Your task to perform on an android device: Open wifi settings Image 0: 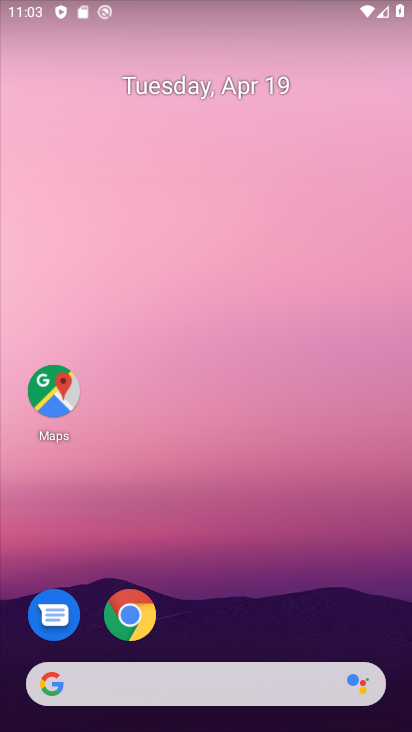
Step 0: drag from (207, 635) to (251, 221)
Your task to perform on an android device: Open wifi settings Image 1: 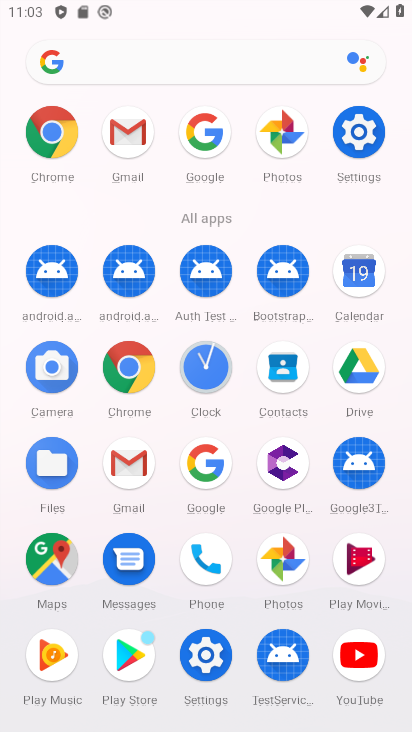
Step 1: click (376, 133)
Your task to perform on an android device: Open wifi settings Image 2: 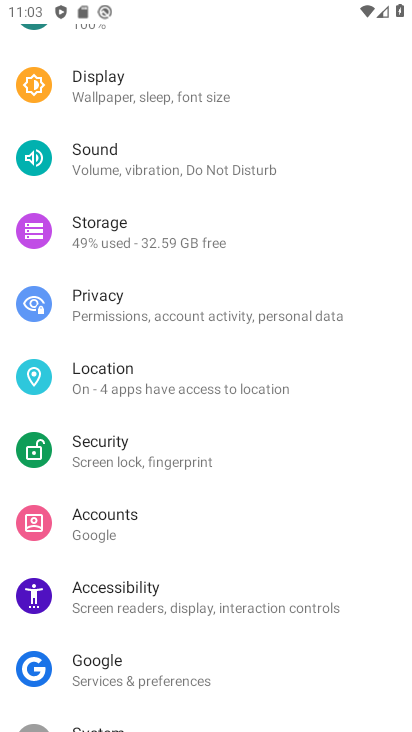
Step 2: drag from (194, 200) to (206, 509)
Your task to perform on an android device: Open wifi settings Image 3: 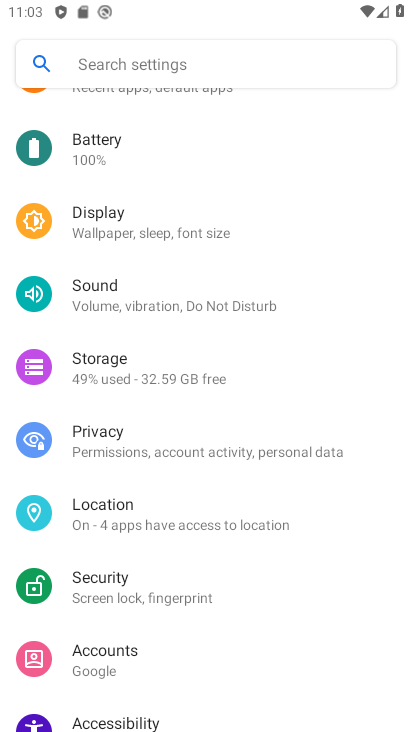
Step 3: drag from (198, 198) to (205, 476)
Your task to perform on an android device: Open wifi settings Image 4: 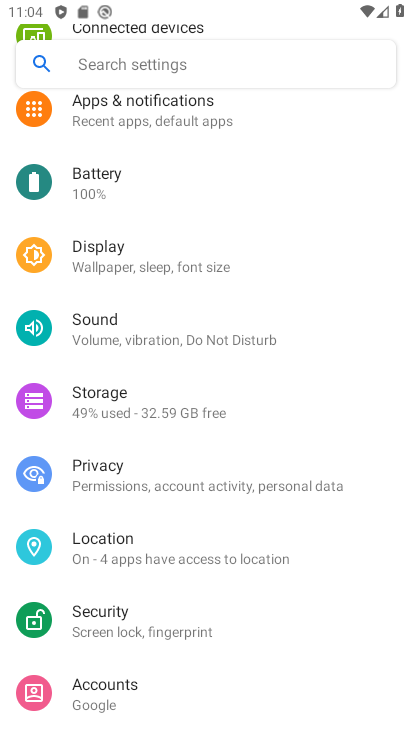
Step 4: drag from (202, 243) to (209, 529)
Your task to perform on an android device: Open wifi settings Image 5: 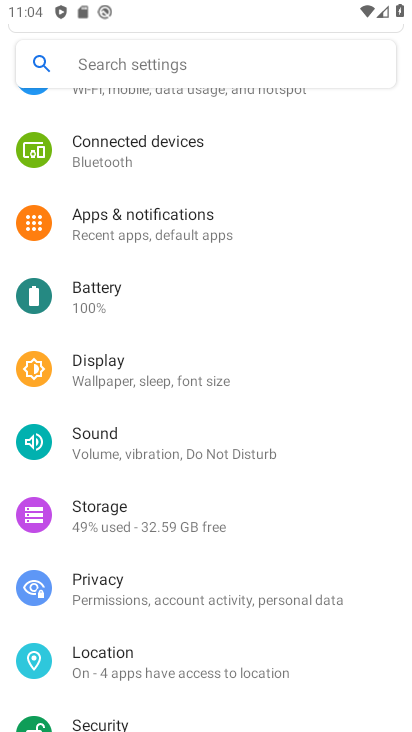
Step 5: drag from (253, 193) to (235, 563)
Your task to perform on an android device: Open wifi settings Image 6: 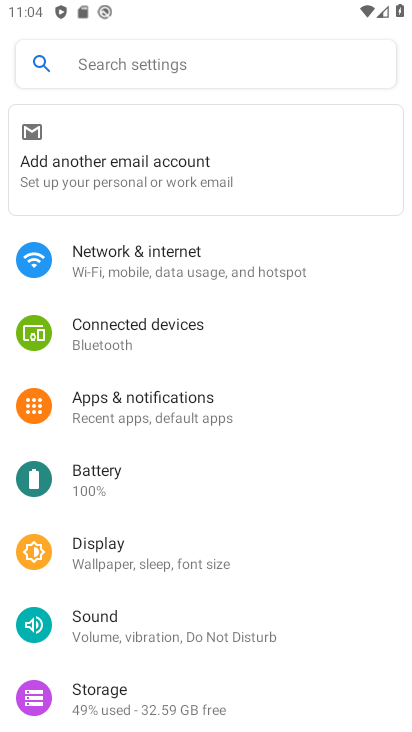
Step 6: click (145, 260)
Your task to perform on an android device: Open wifi settings Image 7: 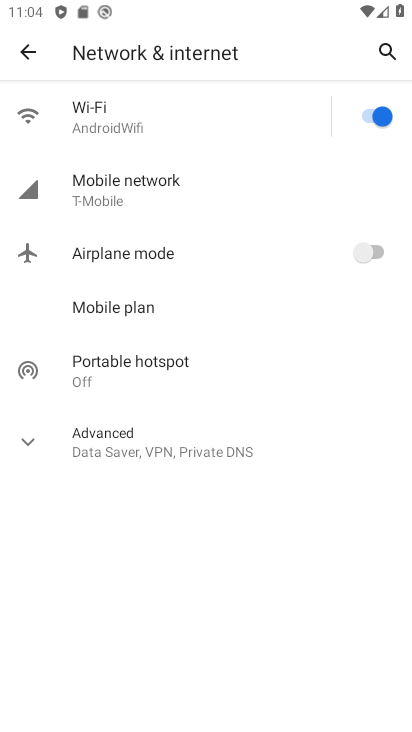
Step 7: click (105, 124)
Your task to perform on an android device: Open wifi settings Image 8: 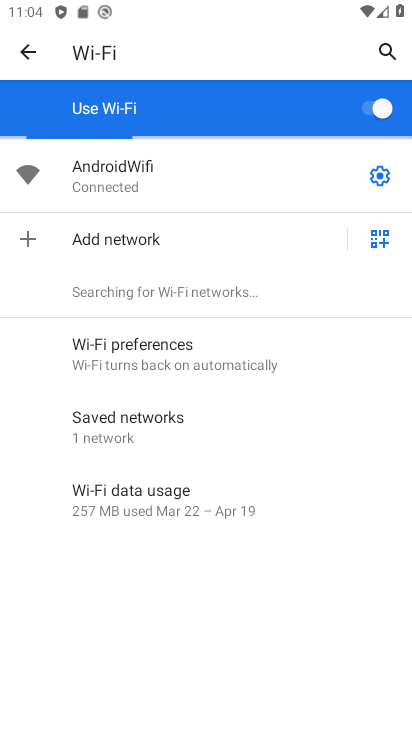
Step 8: task complete